Your task to perform on an android device: toggle improve location accuracy Image 0: 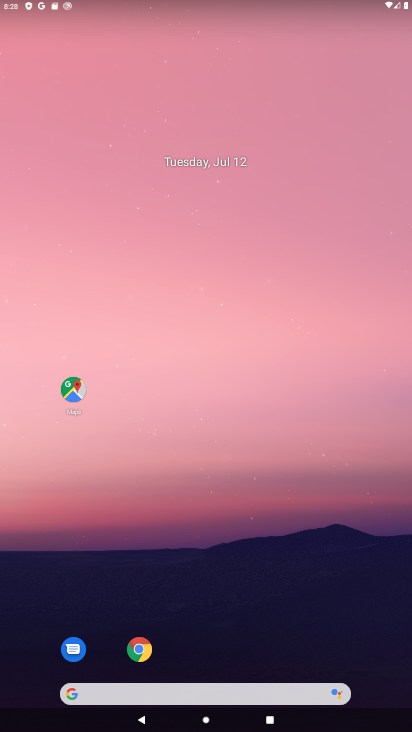
Step 0: click (310, 650)
Your task to perform on an android device: toggle improve location accuracy Image 1: 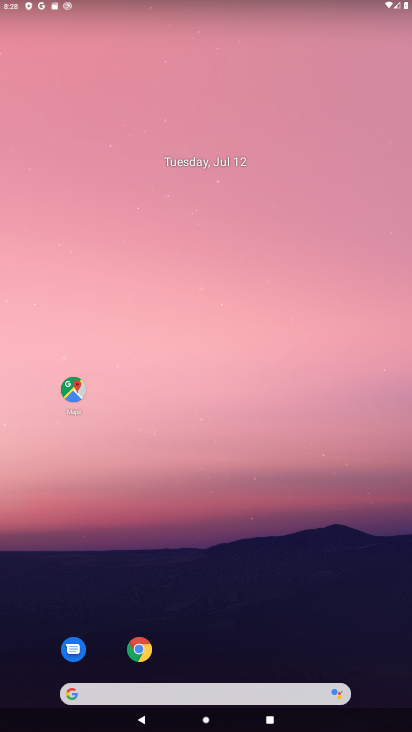
Step 1: drag from (310, 650) to (151, 82)
Your task to perform on an android device: toggle improve location accuracy Image 2: 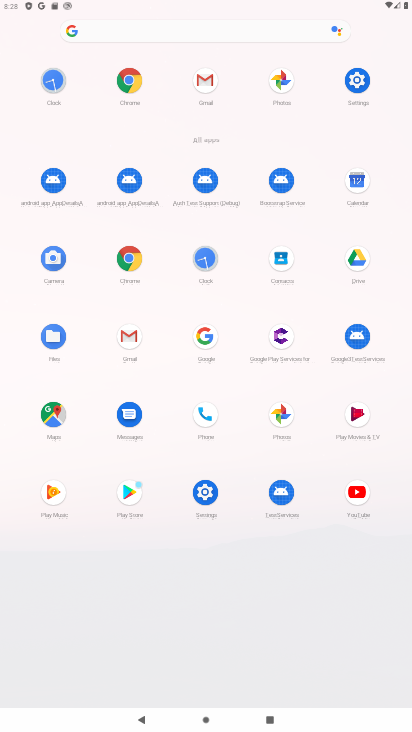
Step 2: click (353, 74)
Your task to perform on an android device: toggle improve location accuracy Image 3: 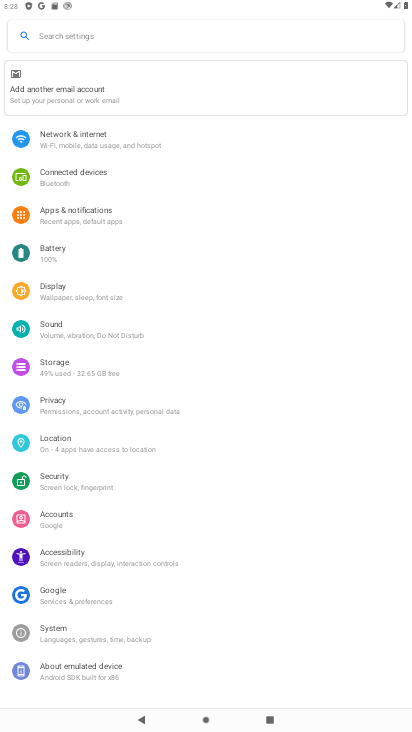
Step 3: click (123, 430)
Your task to perform on an android device: toggle improve location accuracy Image 4: 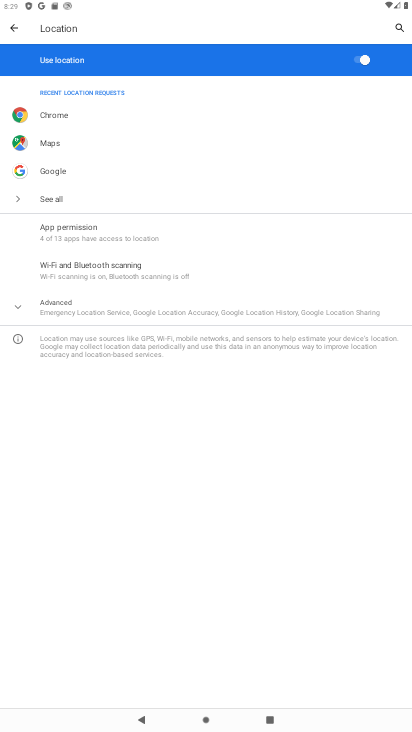
Step 4: click (128, 291)
Your task to perform on an android device: toggle improve location accuracy Image 5: 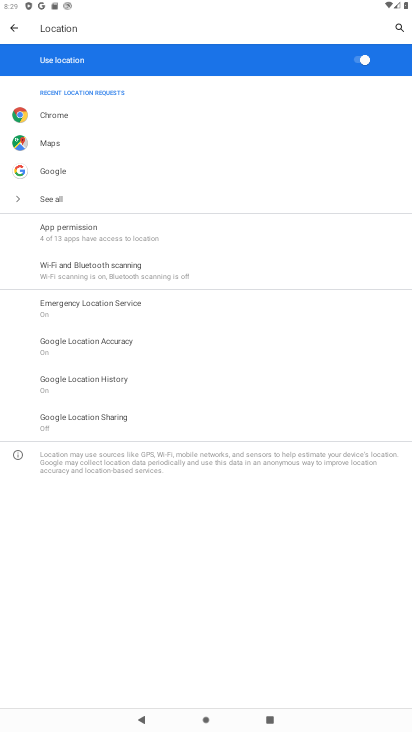
Step 5: click (134, 342)
Your task to perform on an android device: toggle improve location accuracy Image 6: 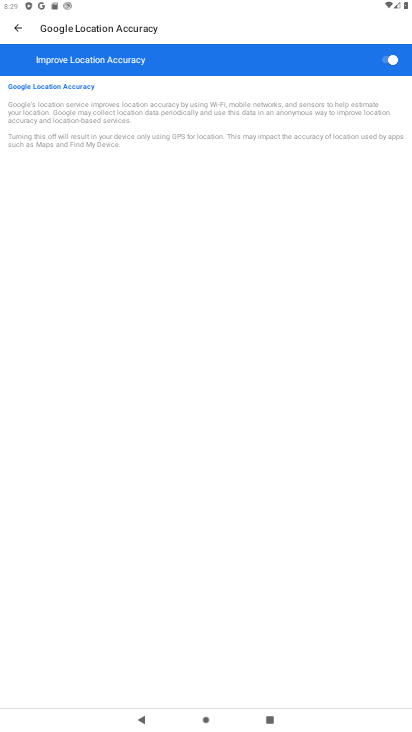
Step 6: task complete